Your task to perform on an android device: find which apps use the phone's location Image 0: 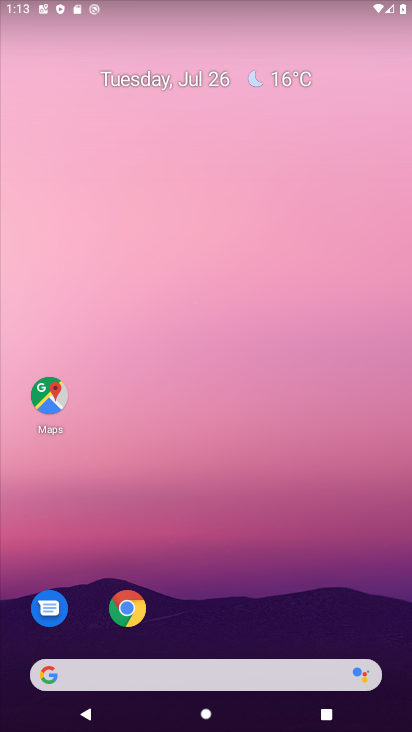
Step 0: drag from (277, 624) to (277, 85)
Your task to perform on an android device: find which apps use the phone's location Image 1: 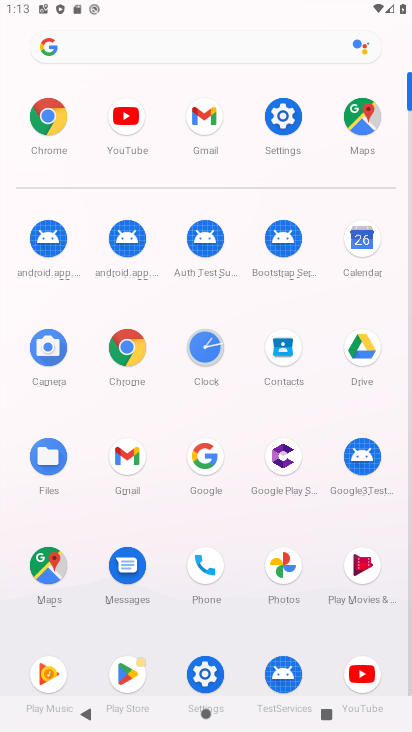
Step 1: click (267, 139)
Your task to perform on an android device: find which apps use the phone's location Image 2: 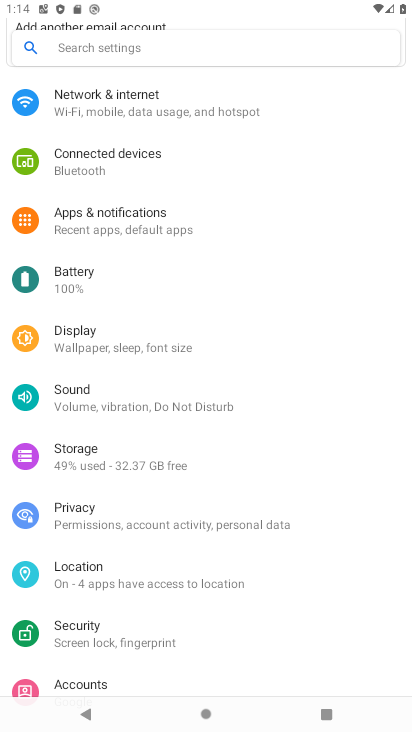
Step 2: click (213, 570)
Your task to perform on an android device: find which apps use the phone's location Image 3: 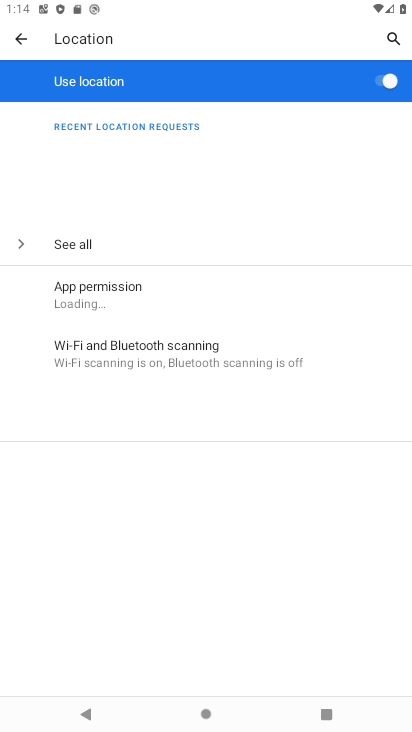
Step 3: task complete